Your task to perform on an android device: Open calendar and show me the fourth week of next month Image 0: 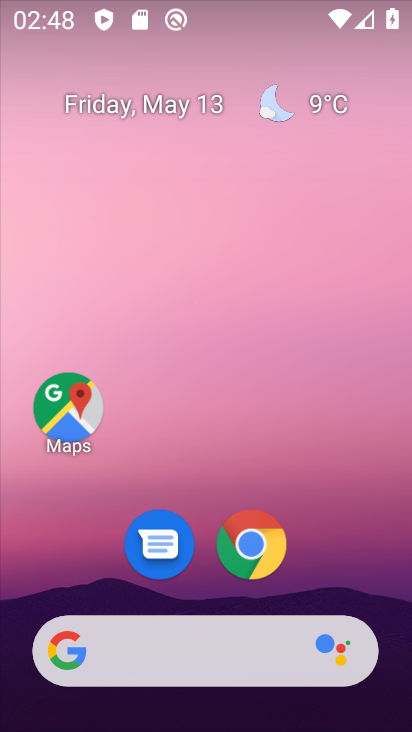
Step 0: drag from (327, 541) to (238, 7)
Your task to perform on an android device: Open calendar and show me the fourth week of next month Image 1: 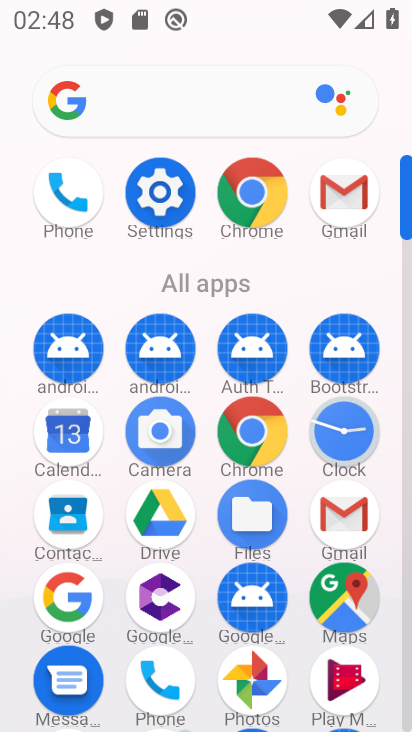
Step 1: click (68, 430)
Your task to perform on an android device: Open calendar and show me the fourth week of next month Image 2: 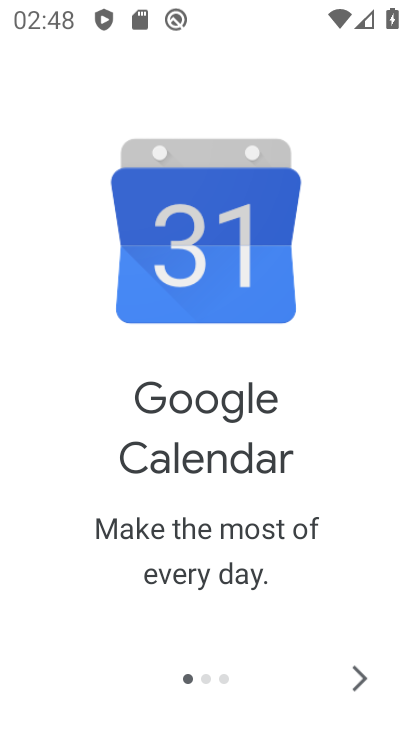
Step 2: click (358, 667)
Your task to perform on an android device: Open calendar and show me the fourth week of next month Image 3: 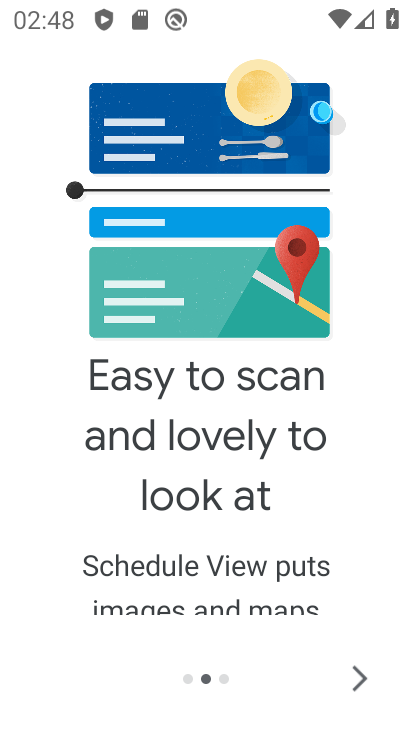
Step 3: click (364, 666)
Your task to perform on an android device: Open calendar and show me the fourth week of next month Image 4: 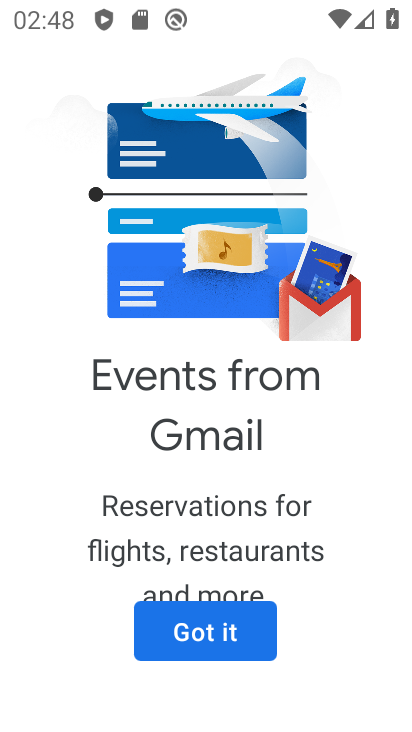
Step 4: click (167, 637)
Your task to perform on an android device: Open calendar and show me the fourth week of next month Image 5: 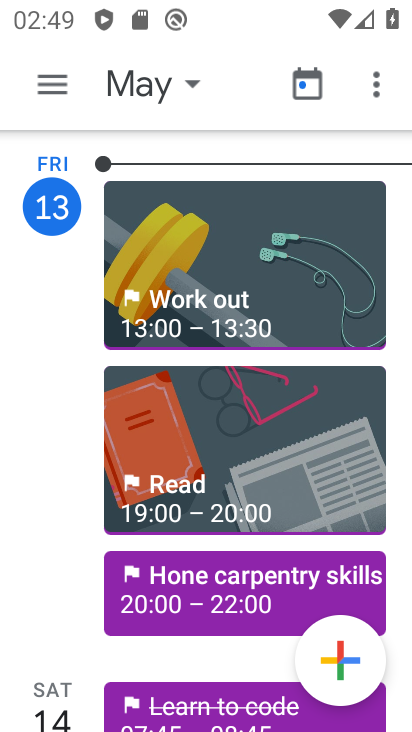
Step 5: click (123, 90)
Your task to perform on an android device: Open calendar and show me the fourth week of next month Image 6: 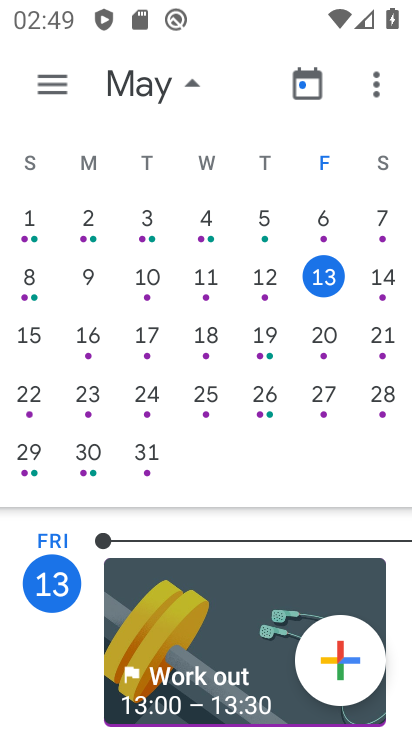
Step 6: drag from (373, 366) to (14, 318)
Your task to perform on an android device: Open calendar and show me the fourth week of next month Image 7: 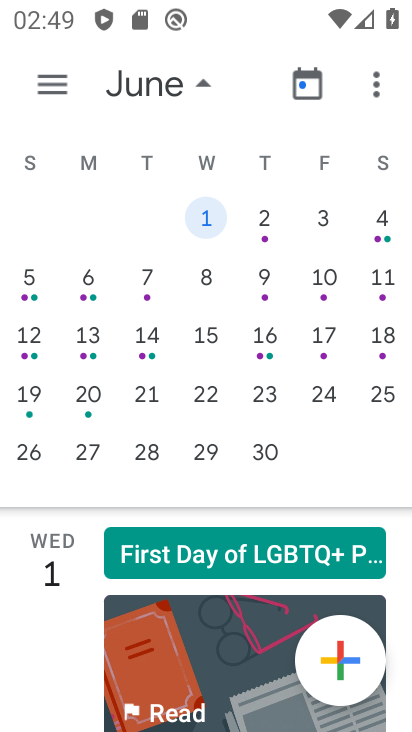
Step 7: click (24, 402)
Your task to perform on an android device: Open calendar and show me the fourth week of next month Image 8: 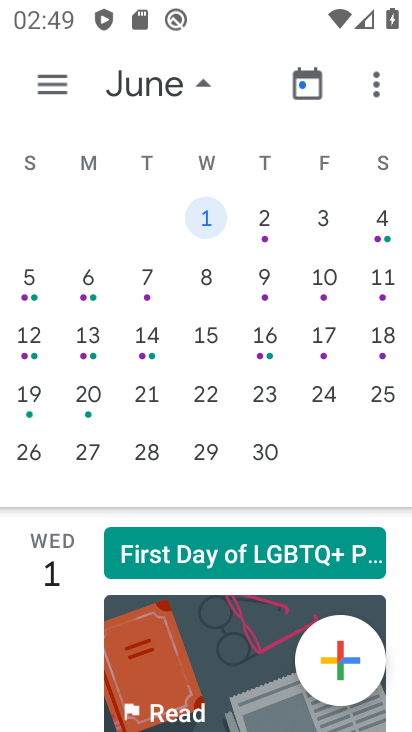
Step 8: click (32, 393)
Your task to perform on an android device: Open calendar and show me the fourth week of next month Image 9: 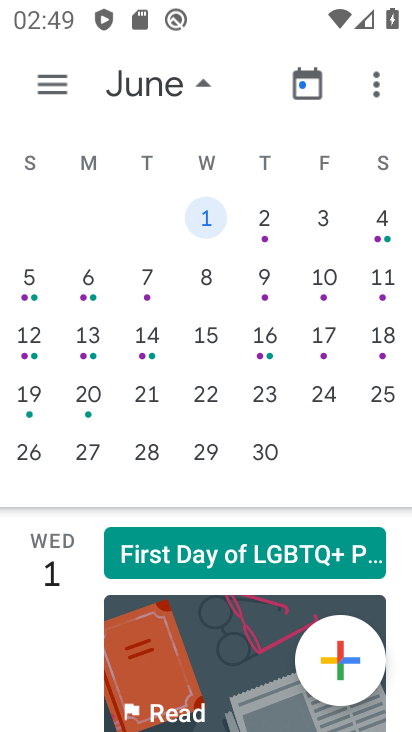
Step 9: click (38, 390)
Your task to perform on an android device: Open calendar and show me the fourth week of next month Image 10: 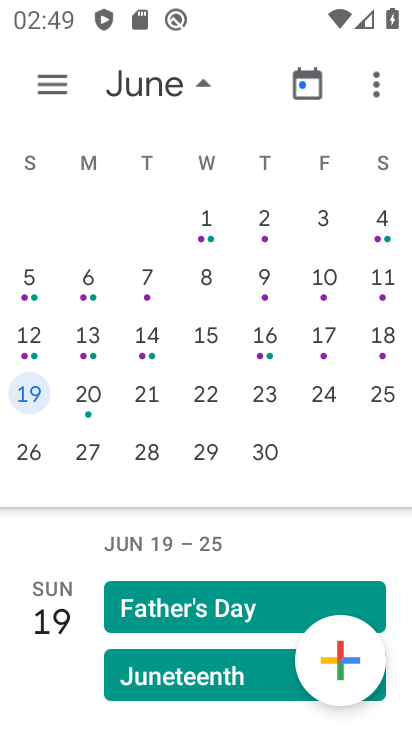
Step 10: click (65, 90)
Your task to perform on an android device: Open calendar and show me the fourth week of next month Image 11: 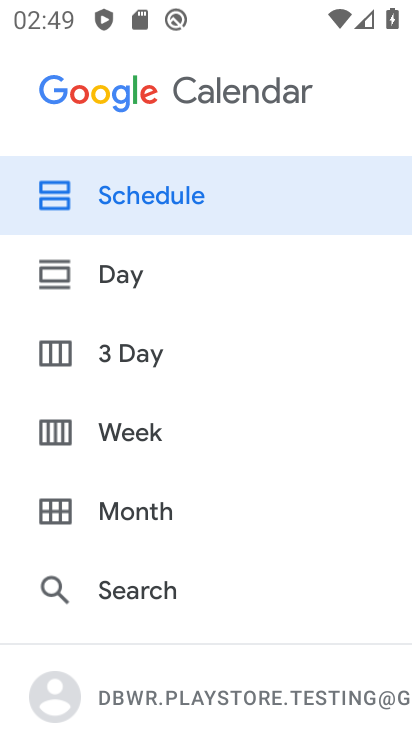
Step 11: click (139, 425)
Your task to perform on an android device: Open calendar and show me the fourth week of next month Image 12: 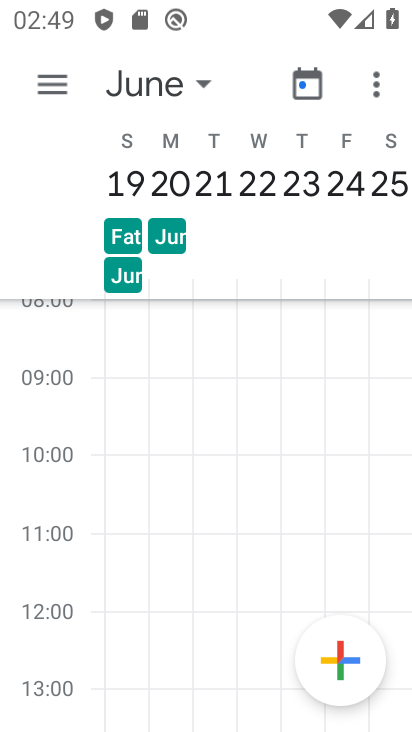
Step 12: task complete